Your task to perform on an android device: Show me the alarms in the clock app Image 0: 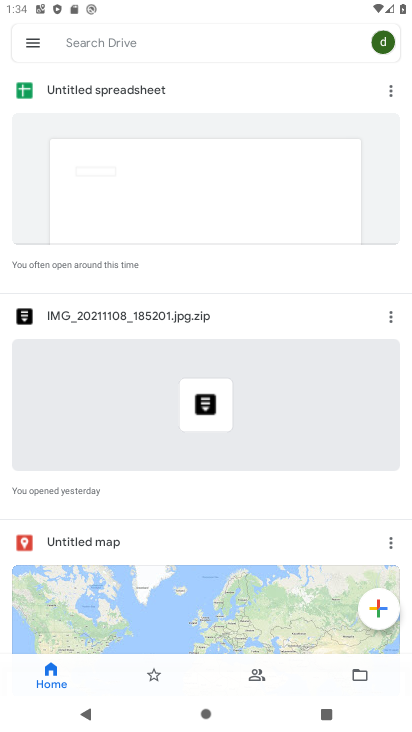
Step 0: press home button
Your task to perform on an android device: Show me the alarms in the clock app Image 1: 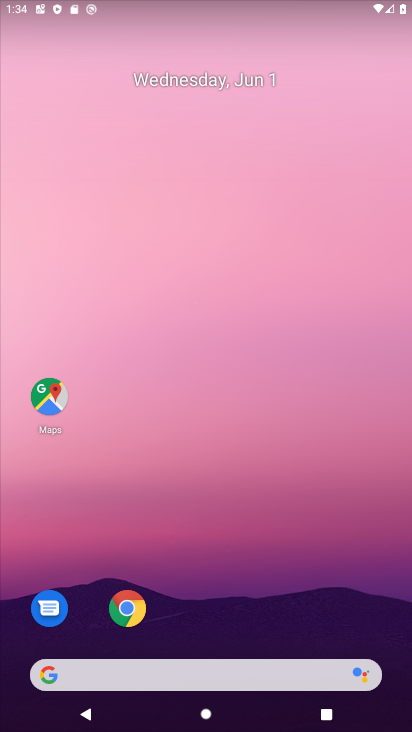
Step 1: drag from (195, 612) to (233, 46)
Your task to perform on an android device: Show me the alarms in the clock app Image 2: 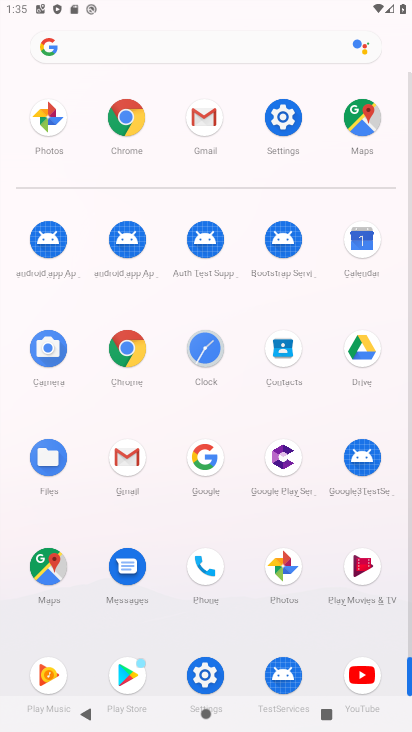
Step 2: click (211, 348)
Your task to perform on an android device: Show me the alarms in the clock app Image 3: 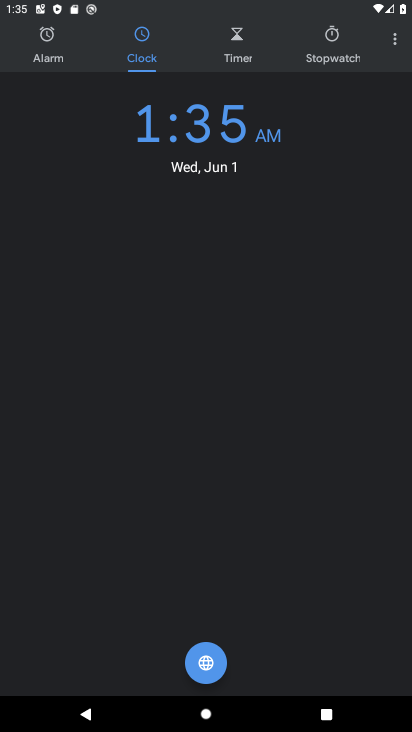
Step 3: click (55, 49)
Your task to perform on an android device: Show me the alarms in the clock app Image 4: 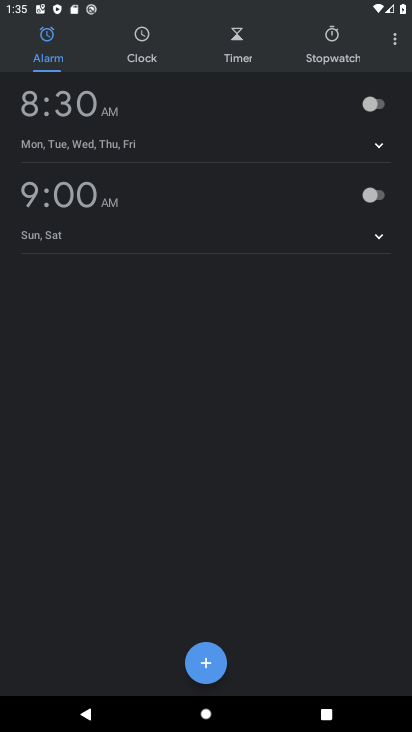
Step 4: task complete